Your task to perform on an android device: Open calendar and show me the second week of next month Image 0: 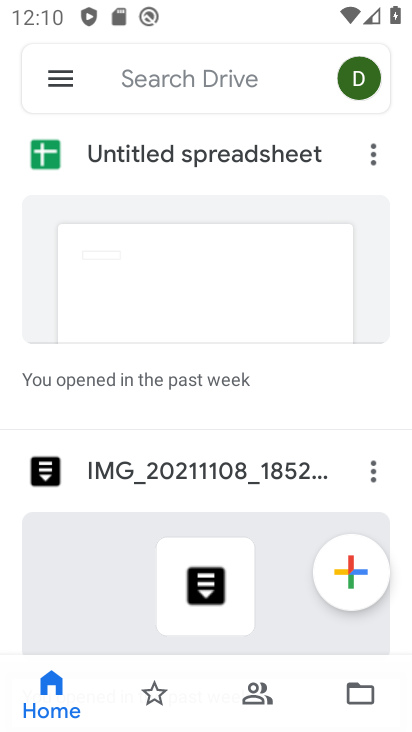
Step 0: task complete